Your task to perform on an android device: turn off data saver in the chrome app Image 0: 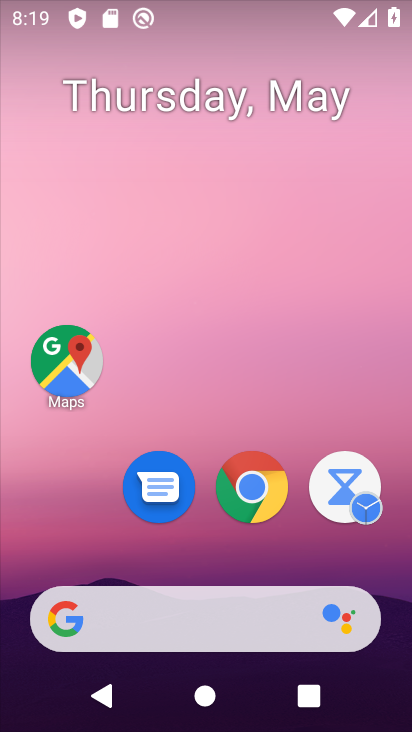
Step 0: drag from (375, 578) to (379, 247)
Your task to perform on an android device: turn off data saver in the chrome app Image 1: 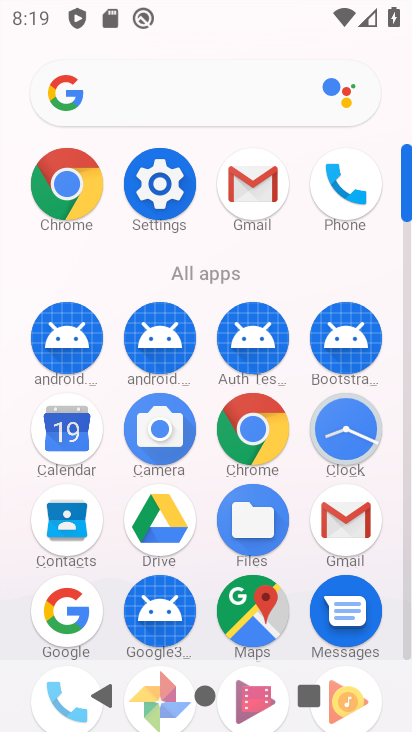
Step 1: click (250, 434)
Your task to perform on an android device: turn off data saver in the chrome app Image 2: 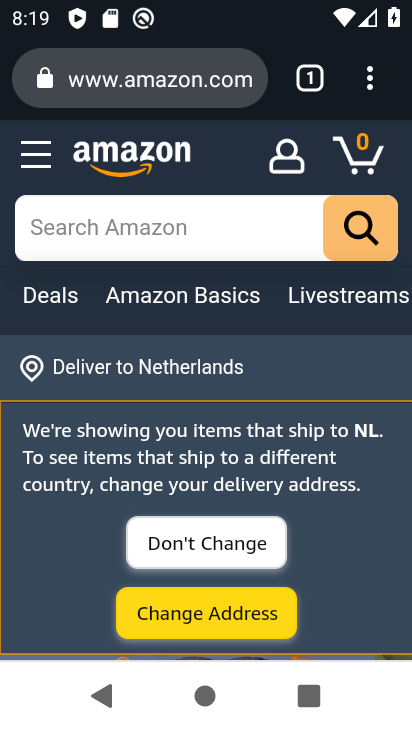
Step 2: click (370, 91)
Your task to perform on an android device: turn off data saver in the chrome app Image 3: 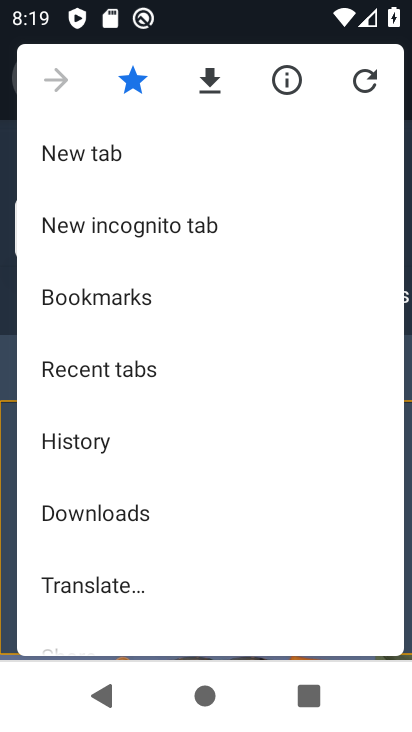
Step 3: drag from (306, 561) to (311, 422)
Your task to perform on an android device: turn off data saver in the chrome app Image 4: 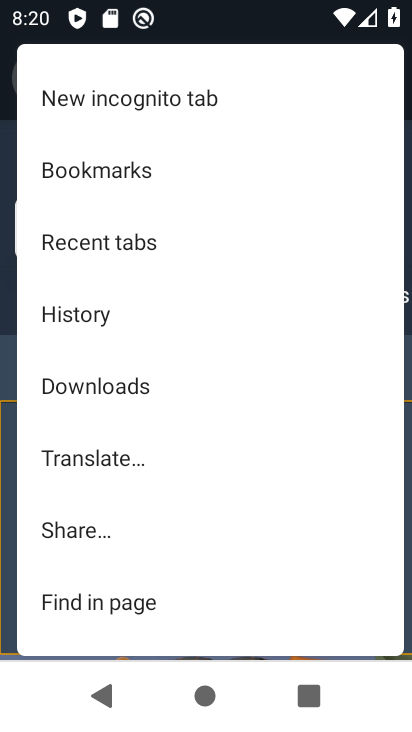
Step 4: drag from (284, 582) to (300, 442)
Your task to perform on an android device: turn off data saver in the chrome app Image 5: 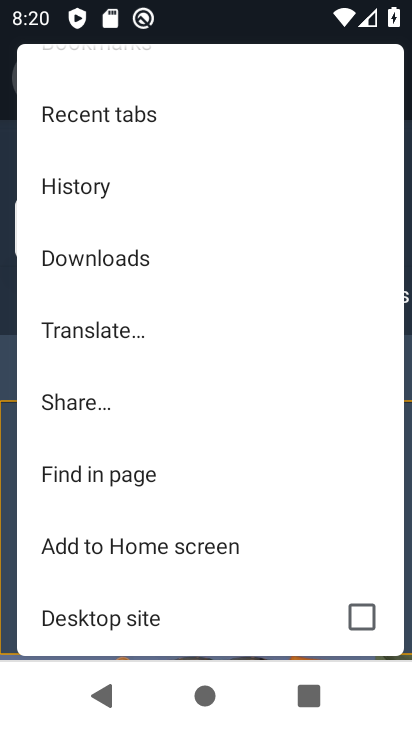
Step 5: drag from (253, 596) to (268, 463)
Your task to perform on an android device: turn off data saver in the chrome app Image 6: 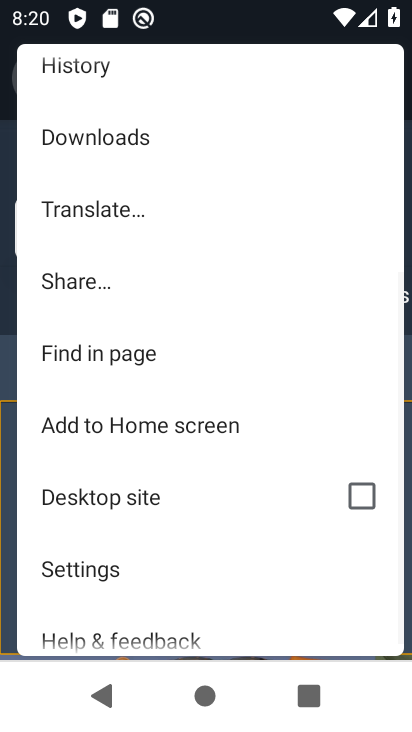
Step 6: drag from (250, 589) to (258, 488)
Your task to perform on an android device: turn off data saver in the chrome app Image 7: 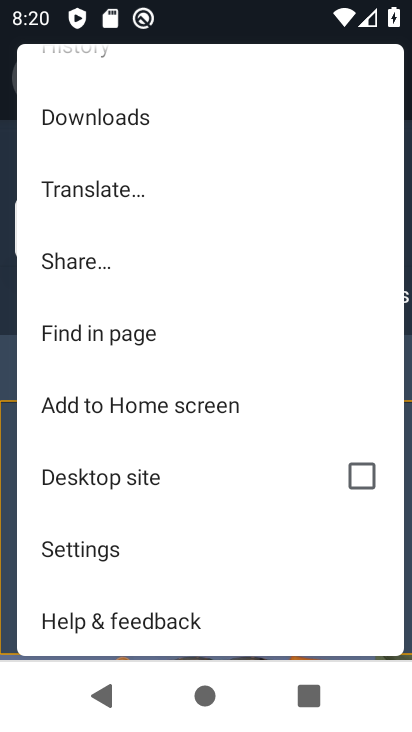
Step 7: click (118, 553)
Your task to perform on an android device: turn off data saver in the chrome app Image 8: 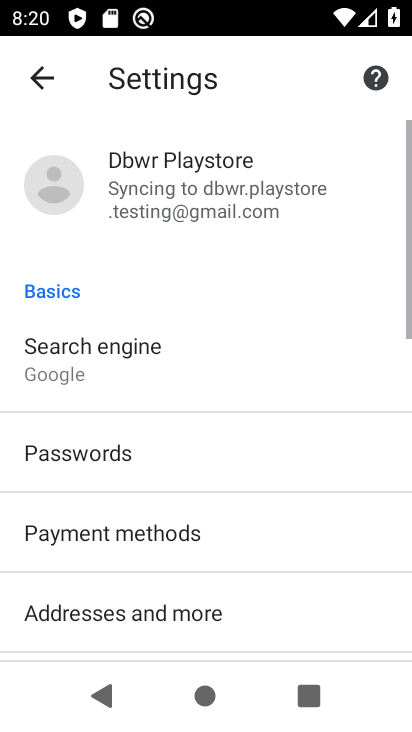
Step 8: drag from (271, 601) to (291, 511)
Your task to perform on an android device: turn off data saver in the chrome app Image 9: 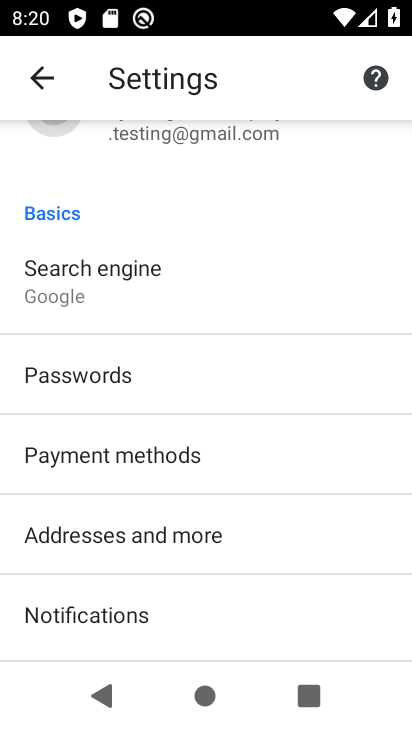
Step 9: drag from (309, 612) to (310, 529)
Your task to perform on an android device: turn off data saver in the chrome app Image 10: 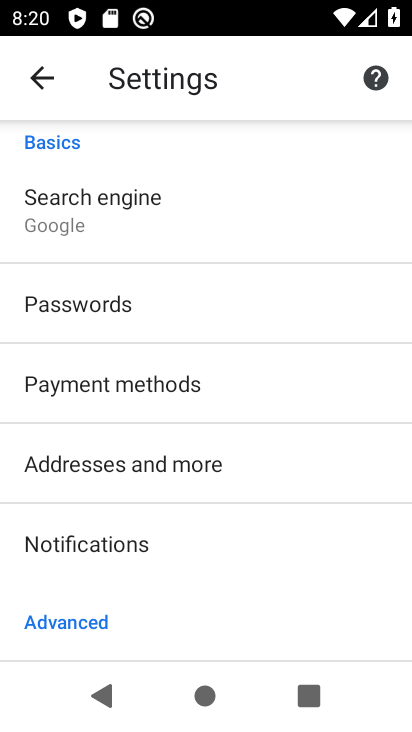
Step 10: drag from (306, 613) to (322, 515)
Your task to perform on an android device: turn off data saver in the chrome app Image 11: 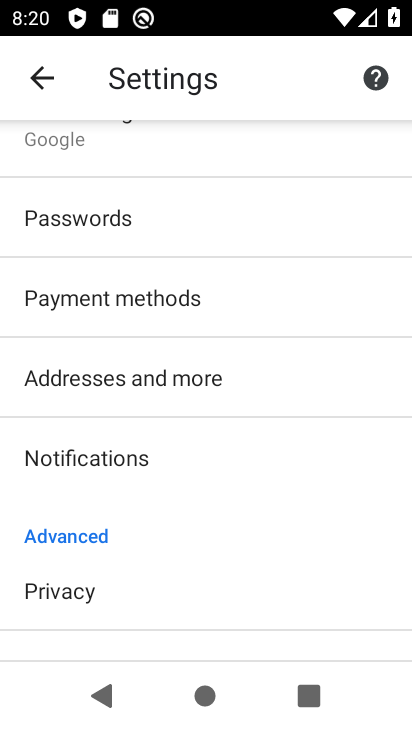
Step 11: drag from (286, 600) to (286, 492)
Your task to perform on an android device: turn off data saver in the chrome app Image 12: 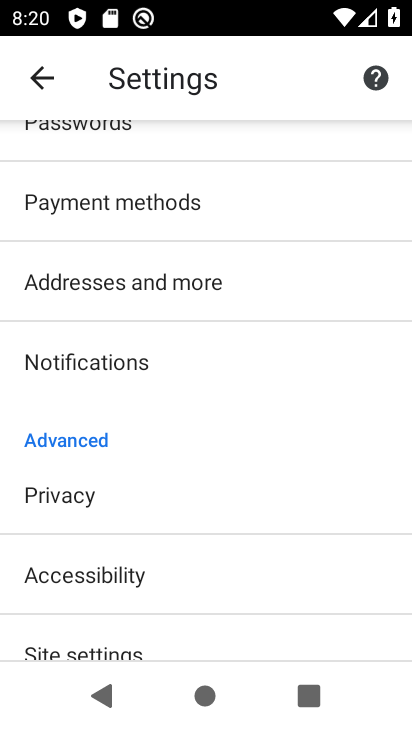
Step 12: drag from (263, 592) to (272, 499)
Your task to perform on an android device: turn off data saver in the chrome app Image 13: 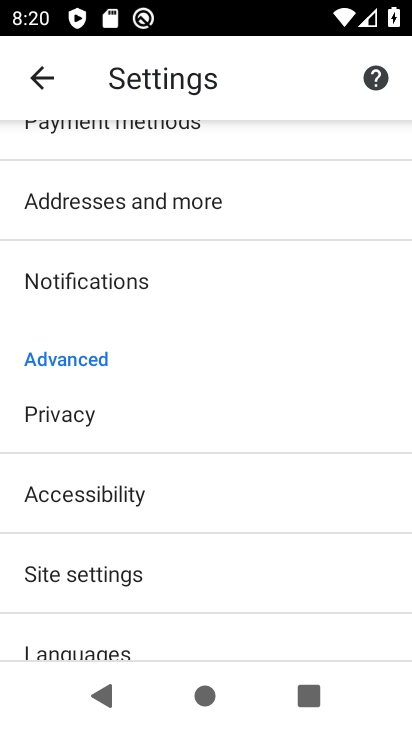
Step 13: drag from (257, 568) to (267, 453)
Your task to perform on an android device: turn off data saver in the chrome app Image 14: 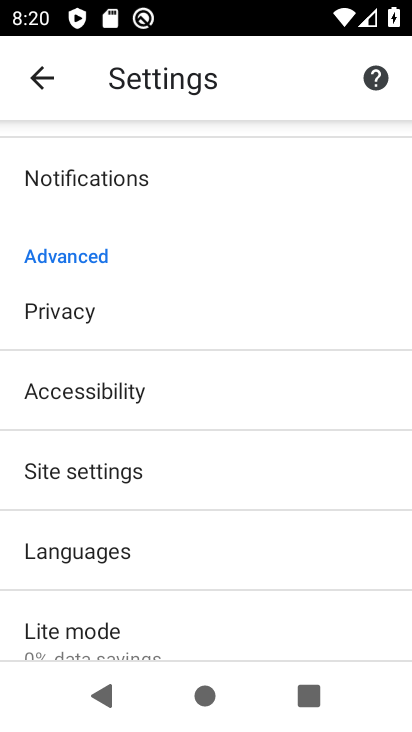
Step 14: drag from (275, 607) to (276, 497)
Your task to perform on an android device: turn off data saver in the chrome app Image 15: 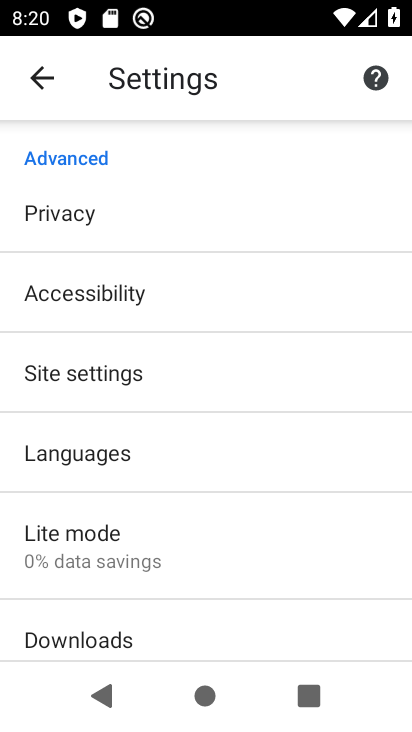
Step 15: click (259, 548)
Your task to perform on an android device: turn off data saver in the chrome app Image 16: 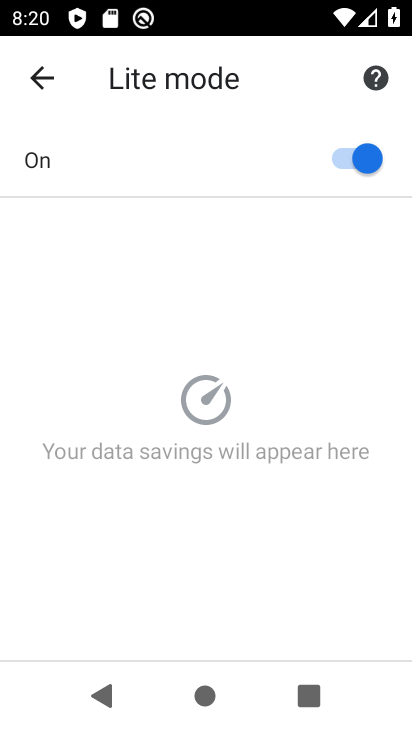
Step 16: click (366, 161)
Your task to perform on an android device: turn off data saver in the chrome app Image 17: 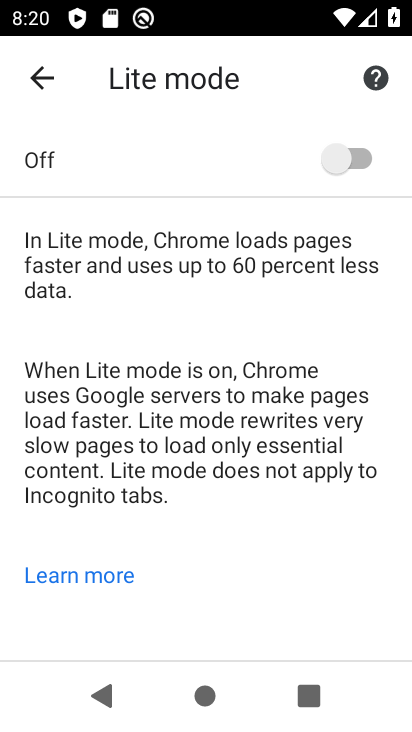
Step 17: task complete